Your task to perform on an android device: visit the assistant section in the google photos Image 0: 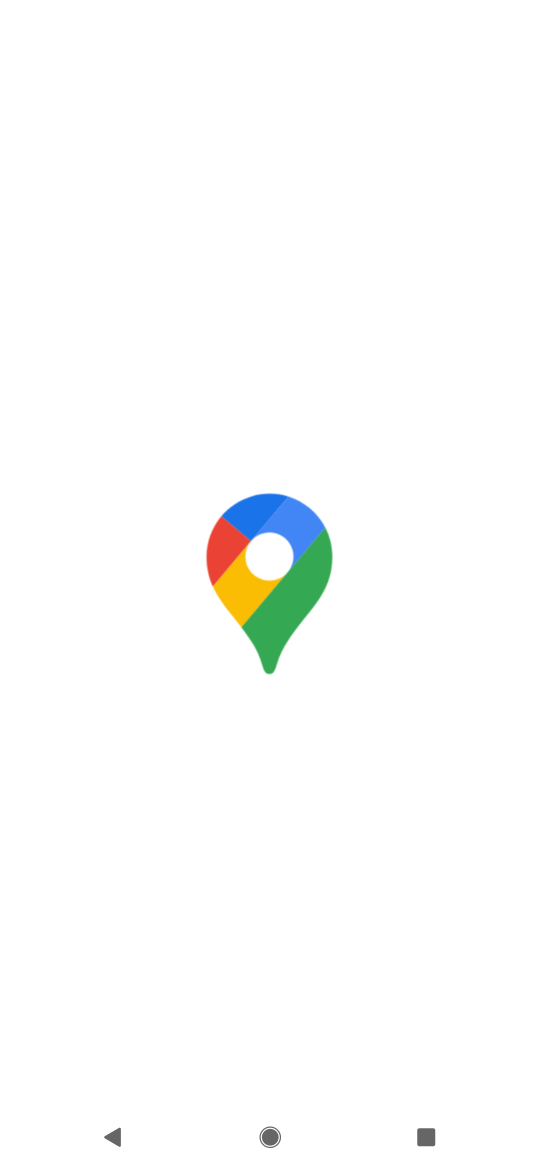
Step 0: press home button
Your task to perform on an android device: visit the assistant section in the google photos Image 1: 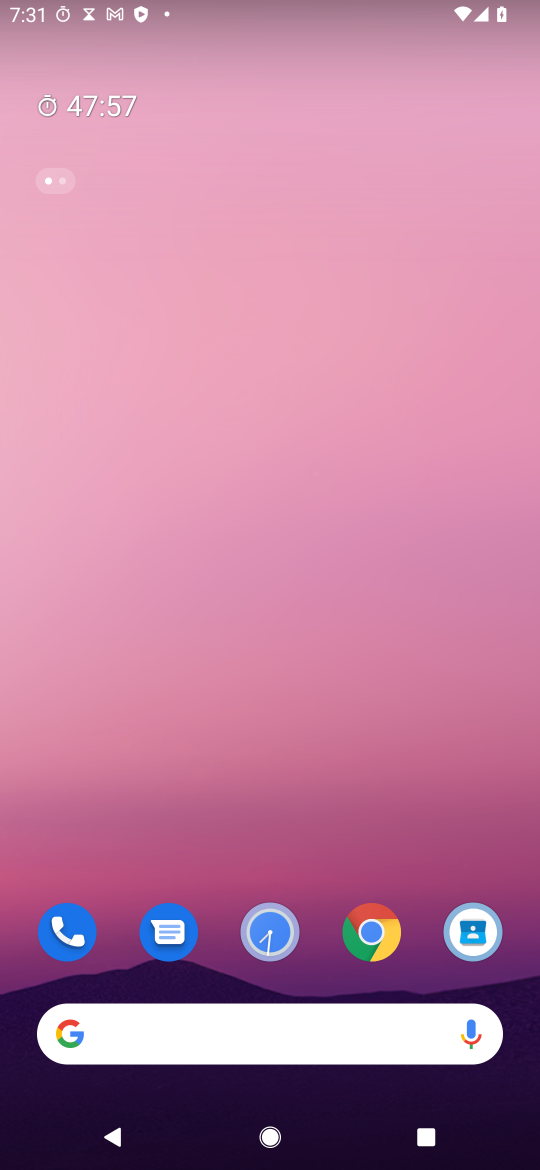
Step 1: drag from (438, 943) to (467, 206)
Your task to perform on an android device: visit the assistant section in the google photos Image 2: 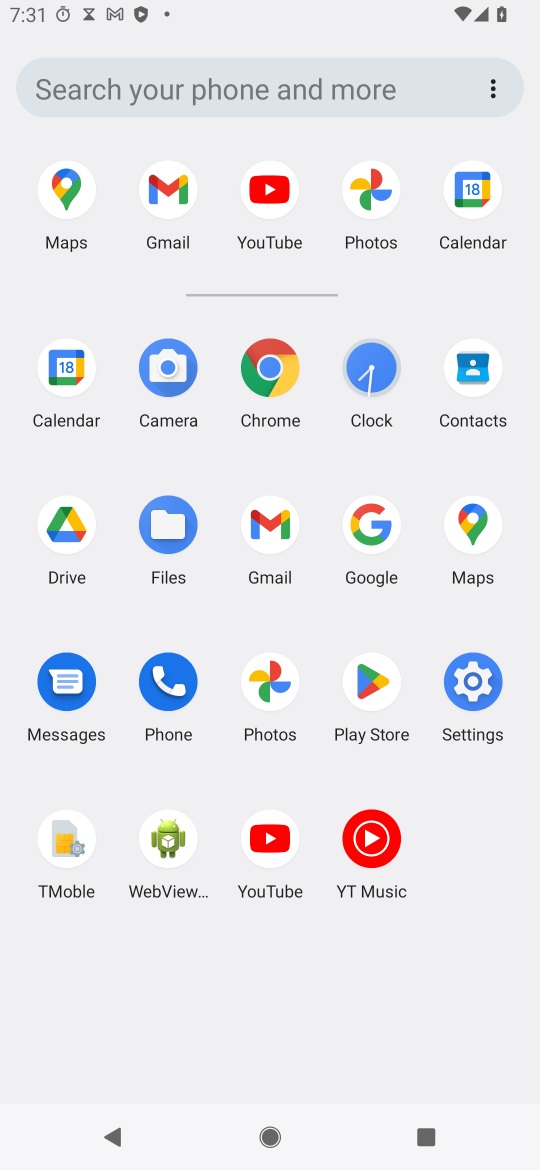
Step 2: click (264, 684)
Your task to perform on an android device: visit the assistant section in the google photos Image 3: 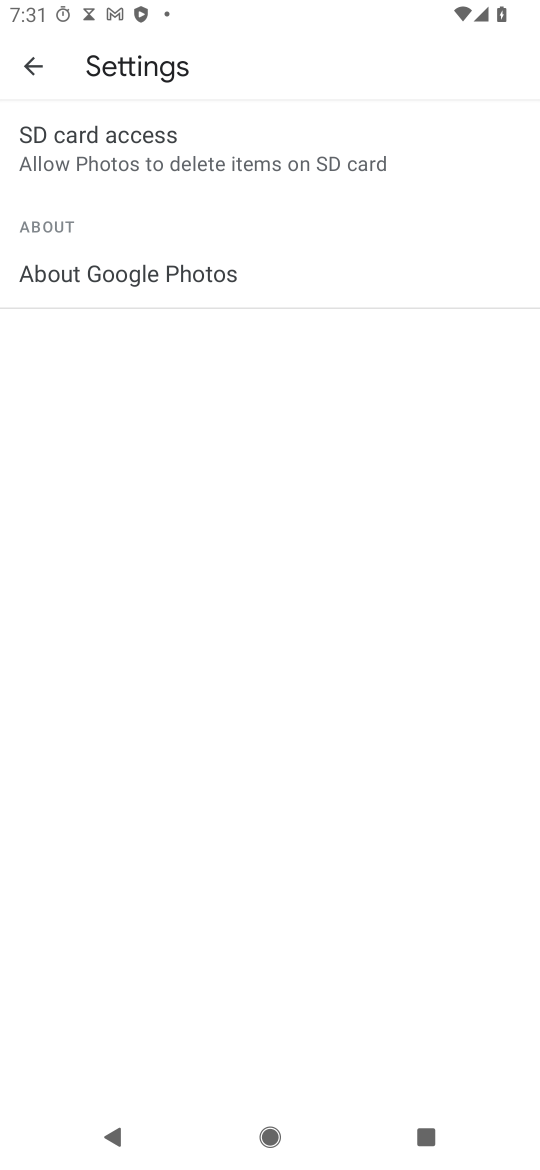
Step 3: click (36, 63)
Your task to perform on an android device: visit the assistant section in the google photos Image 4: 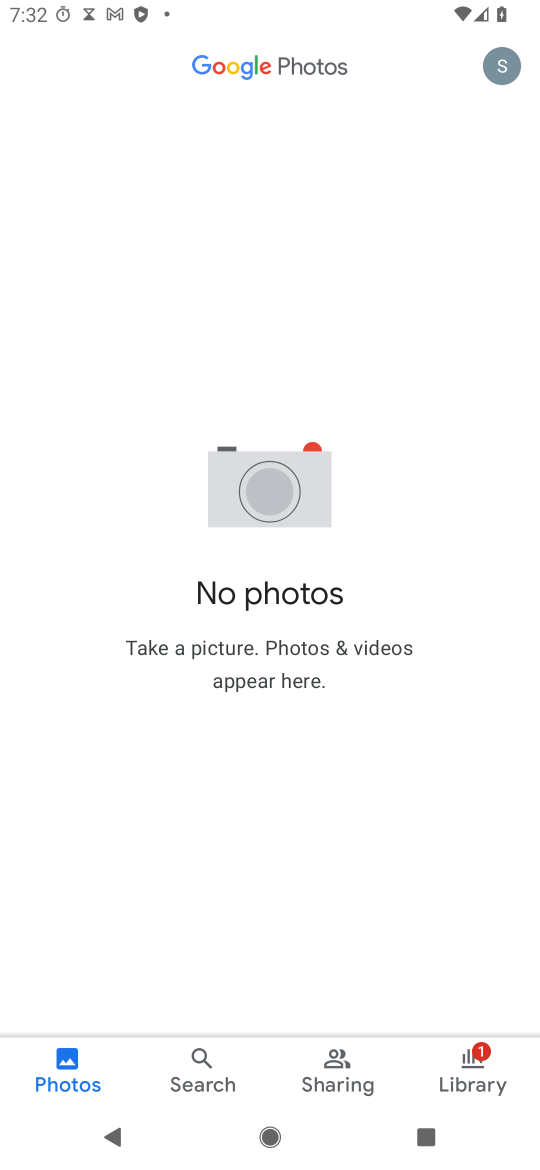
Step 4: task complete